Your task to perform on an android device: toggle sleep mode Image 0: 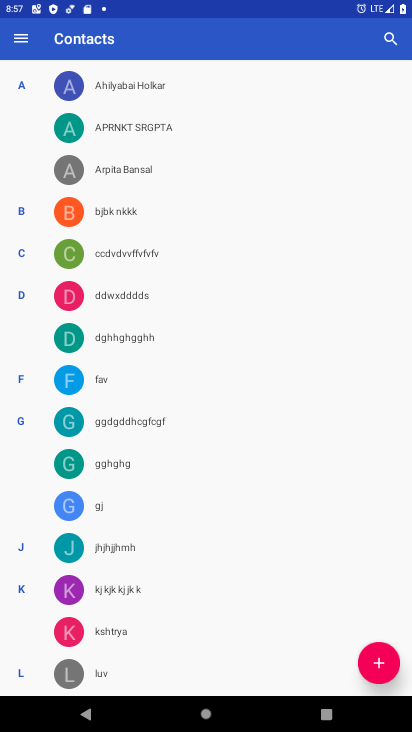
Step 0: press home button
Your task to perform on an android device: toggle sleep mode Image 1: 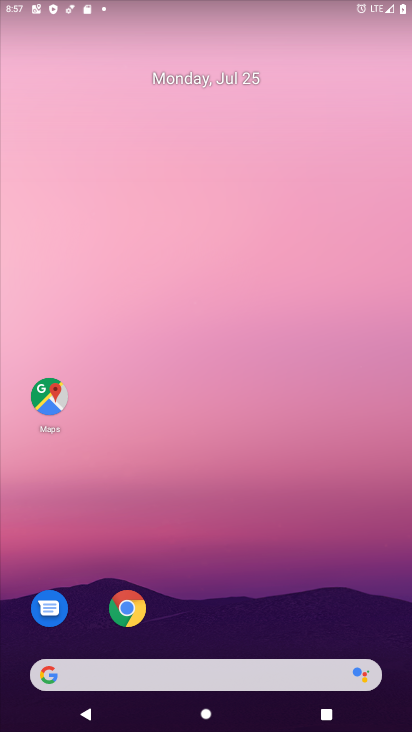
Step 1: drag from (234, 721) to (196, 185)
Your task to perform on an android device: toggle sleep mode Image 2: 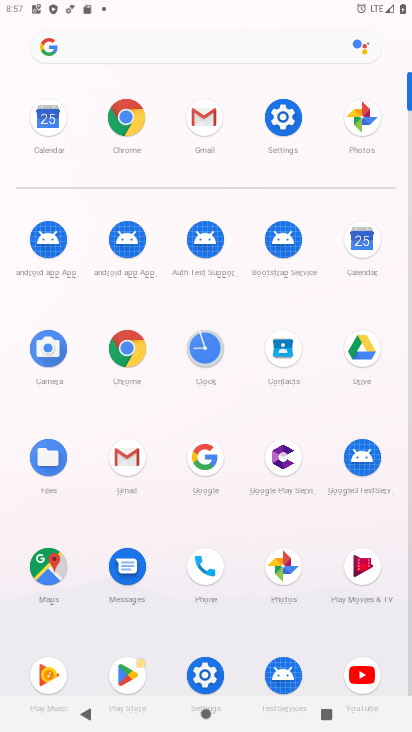
Step 2: click (287, 114)
Your task to perform on an android device: toggle sleep mode Image 3: 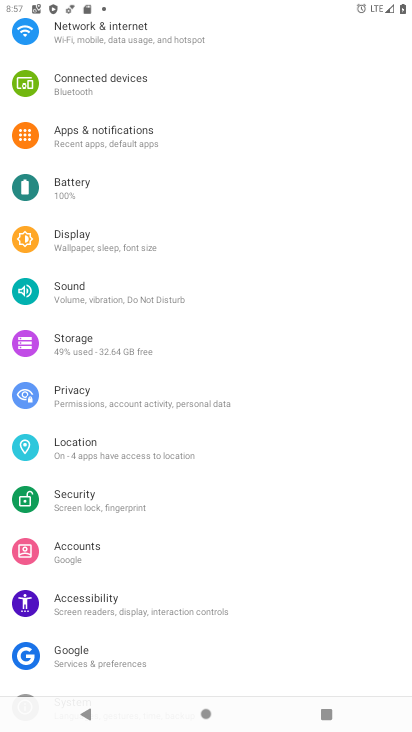
Step 3: click (79, 251)
Your task to perform on an android device: toggle sleep mode Image 4: 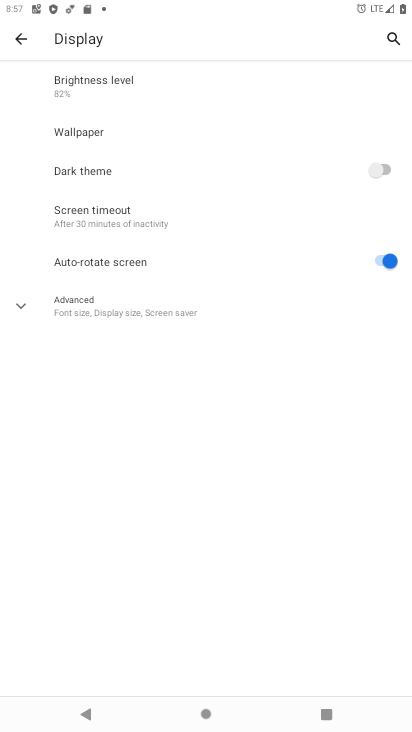
Step 4: click (19, 35)
Your task to perform on an android device: toggle sleep mode Image 5: 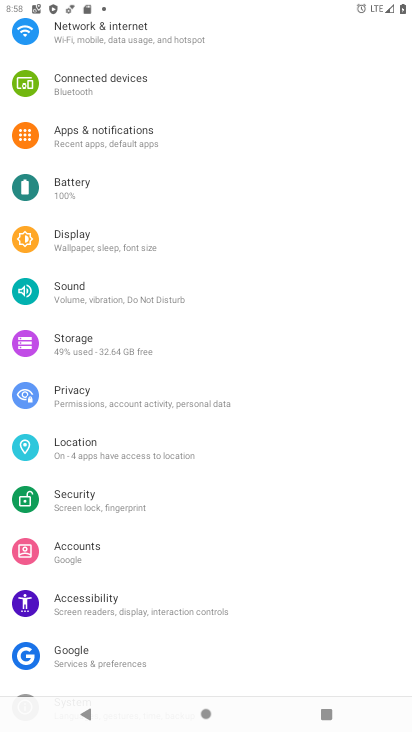
Step 5: task complete